Your task to perform on an android device: toggle data saver in the chrome app Image 0: 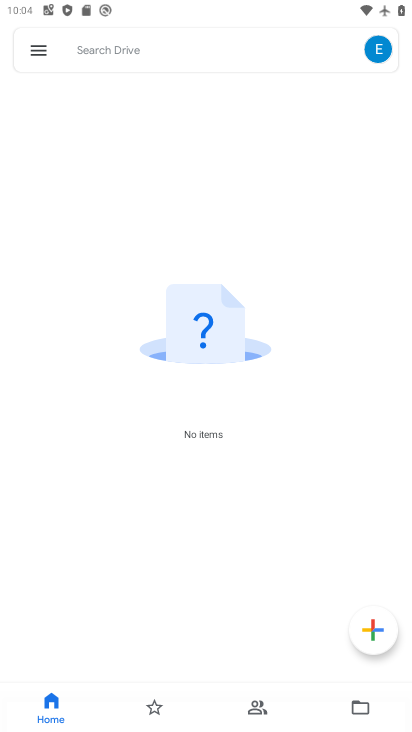
Step 0: press home button
Your task to perform on an android device: toggle data saver in the chrome app Image 1: 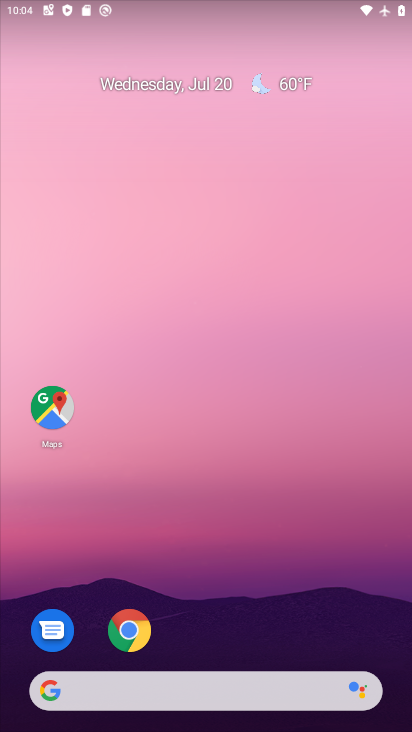
Step 1: click (125, 634)
Your task to perform on an android device: toggle data saver in the chrome app Image 2: 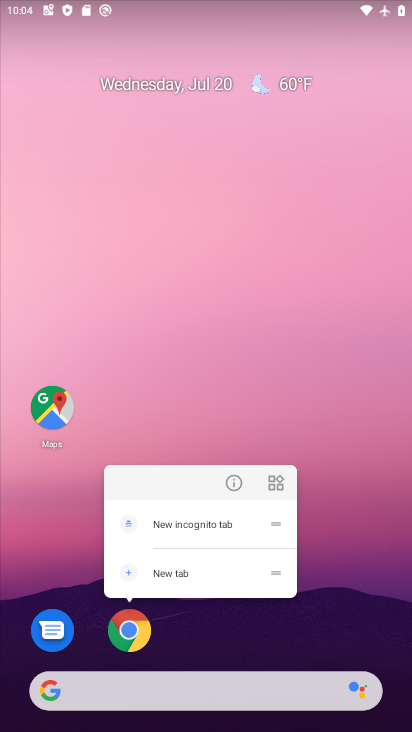
Step 2: click (125, 634)
Your task to perform on an android device: toggle data saver in the chrome app Image 3: 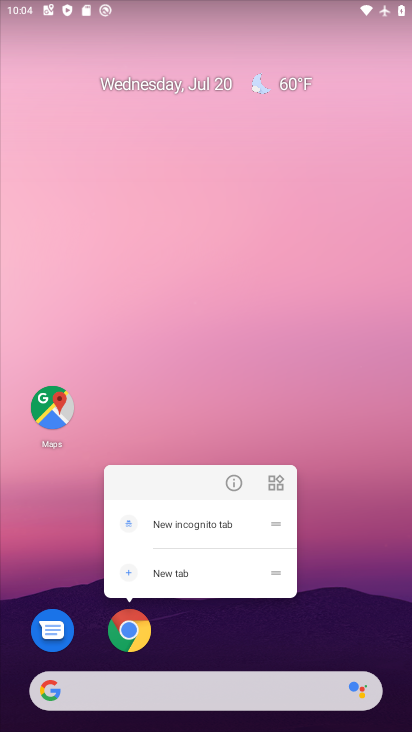
Step 3: click (125, 634)
Your task to perform on an android device: toggle data saver in the chrome app Image 4: 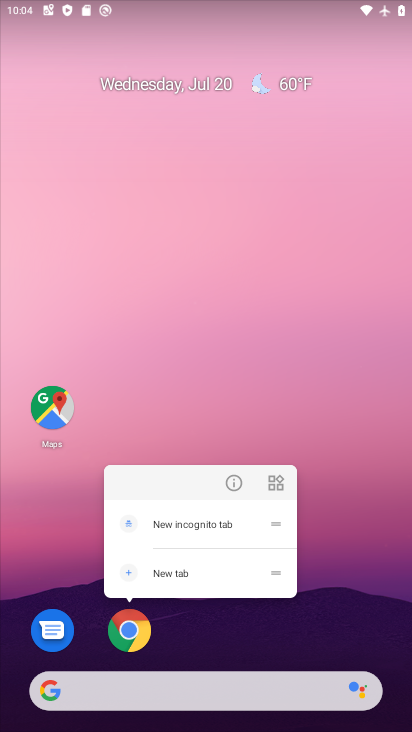
Step 4: click (128, 630)
Your task to perform on an android device: toggle data saver in the chrome app Image 5: 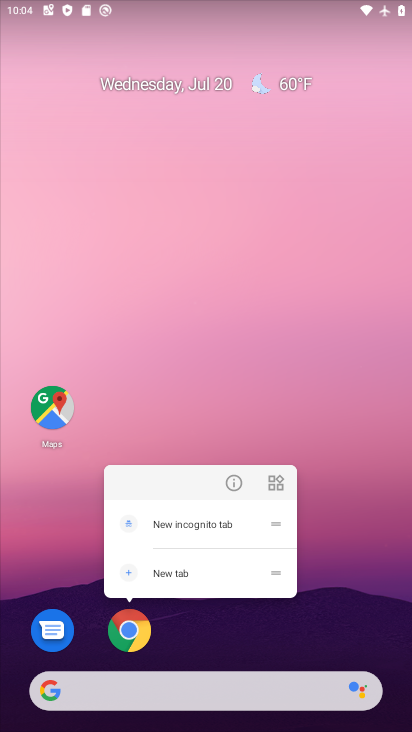
Step 5: click (128, 629)
Your task to perform on an android device: toggle data saver in the chrome app Image 6: 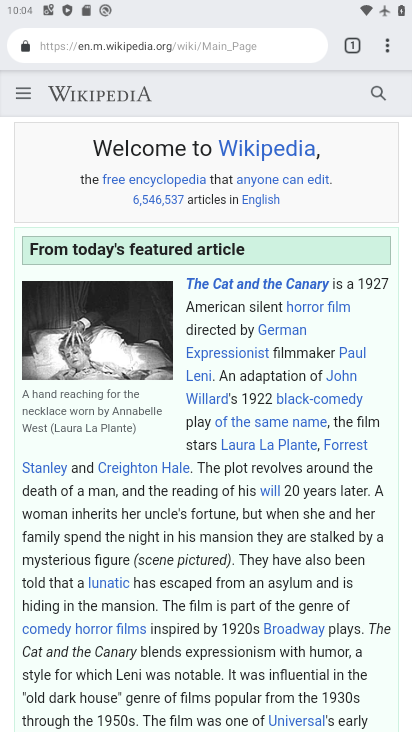
Step 6: click (380, 48)
Your task to perform on an android device: toggle data saver in the chrome app Image 7: 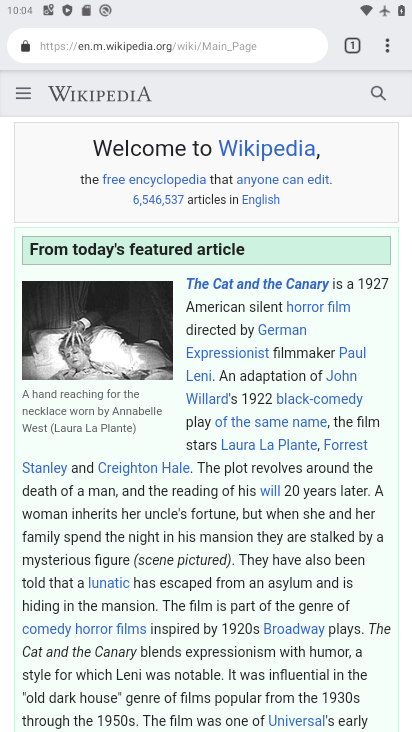
Step 7: click (384, 46)
Your task to perform on an android device: toggle data saver in the chrome app Image 8: 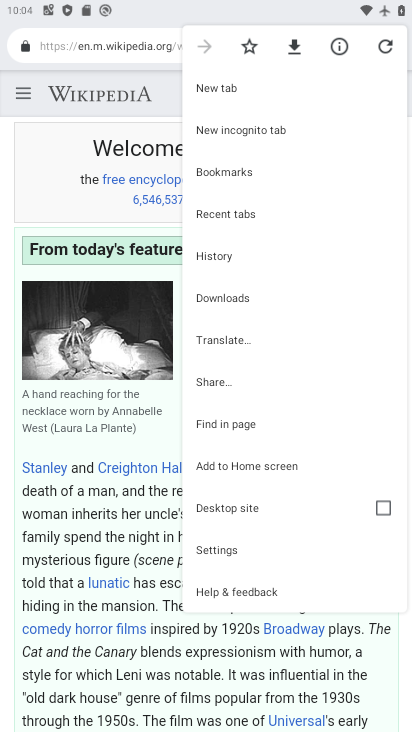
Step 8: click (227, 553)
Your task to perform on an android device: toggle data saver in the chrome app Image 9: 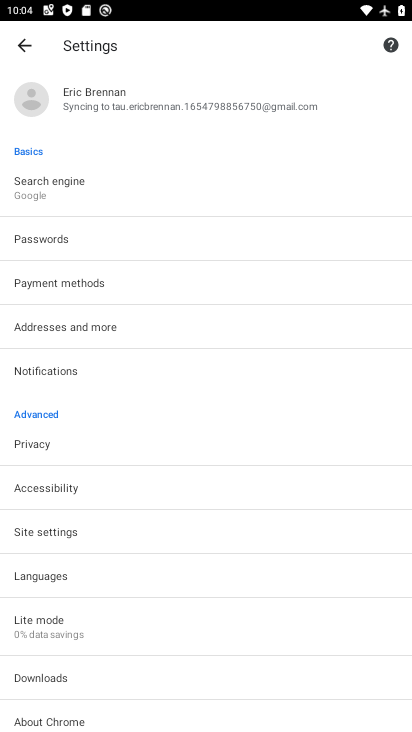
Step 9: click (38, 625)
Your task to perform on an android device: toggle data saver in the chrome app Image 10: 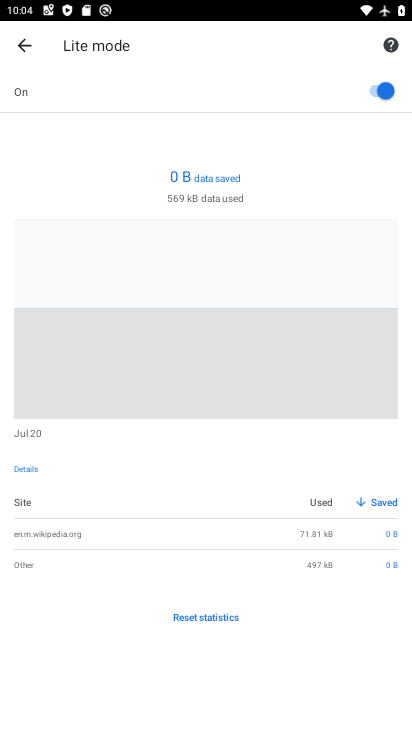
Step 10: click (366, 89)
Your task to perform on an android device: toggle data saver in the chrome app Image 11: 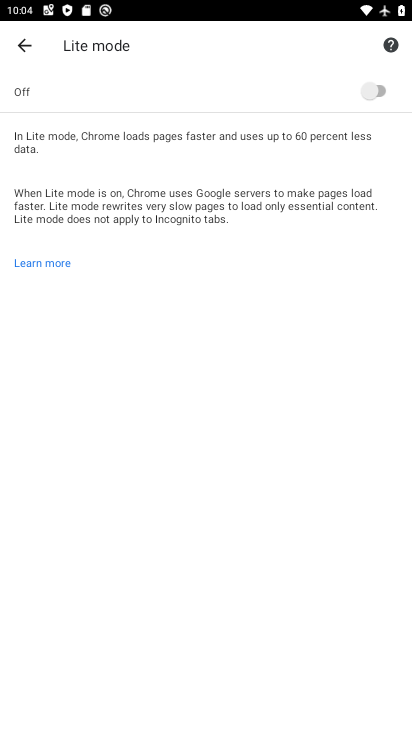
Step 11: task complete